Your task to perform on an android device: Go to Reddit.com Image 0: 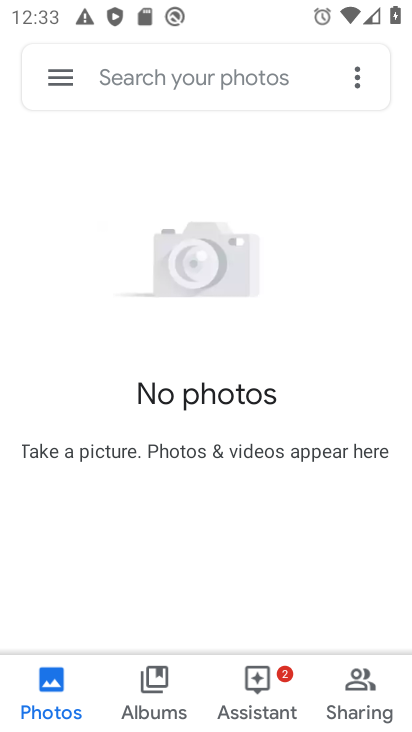
Step 0: press home button
Your task to perform on an android device: Go to Reddit.com Image 1: 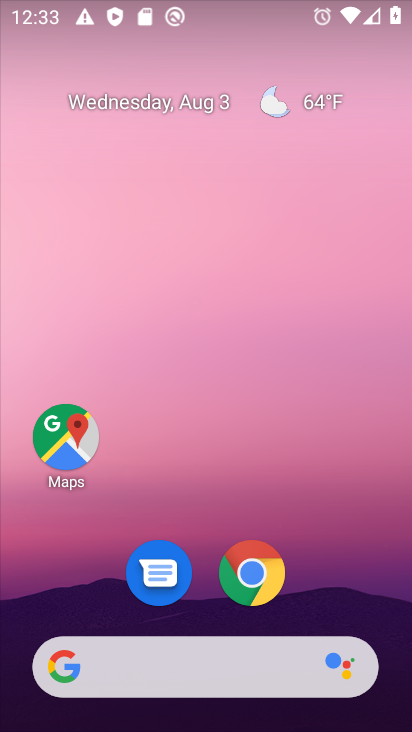
Step 1: drag from (239, 628) to (270, 3)
Your task to perform on an android device: Go to Reddit.com Image 2: 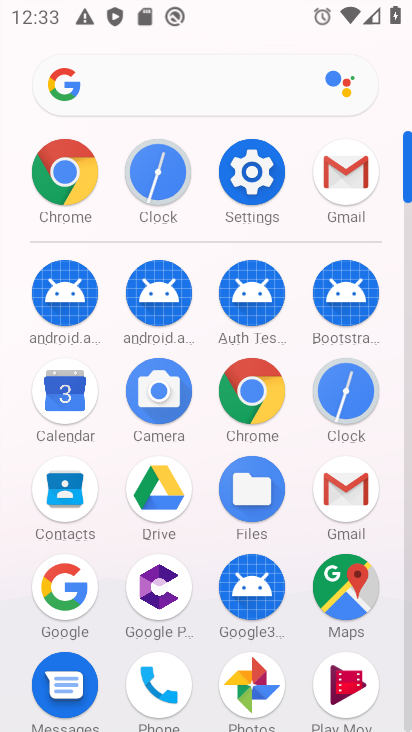
Step 2: click (261, 391)
Your task to perform on an android device: Go to Reddit.com Image 3: 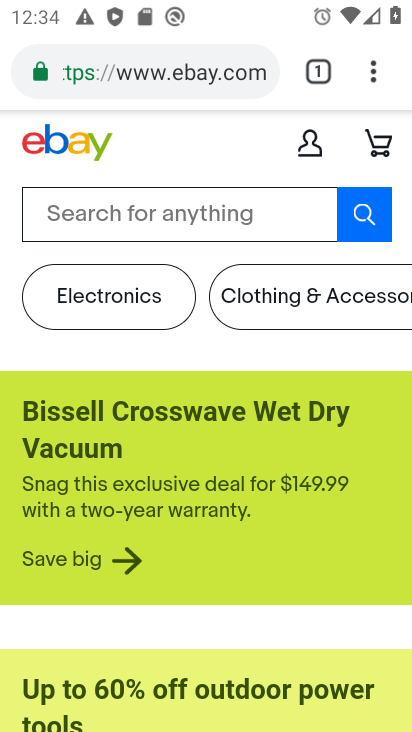
Step 3: click (144, 85)
Your task to perform on an android device: Go to Reddit.com Image 4: 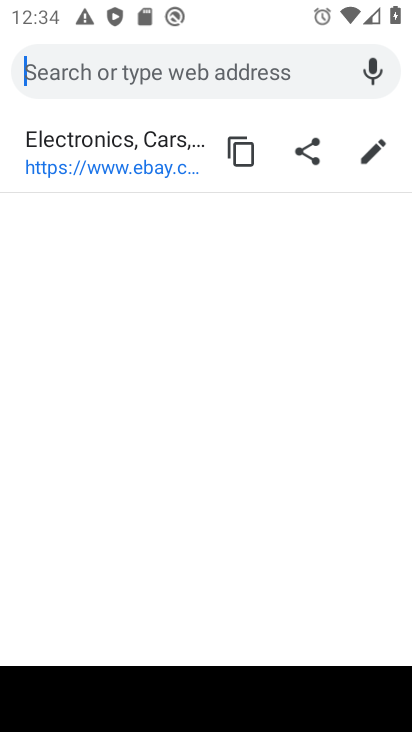
Step 4: type "ressit"
Your task to perform on an android device: Go to Reddit.com Image 5: 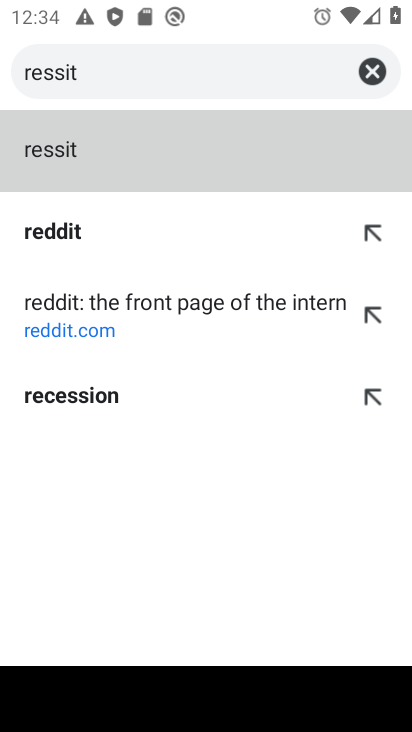
Step 5: click (167, 299)
Your task to perform on an android device: Go to Reddit.com Image 6: 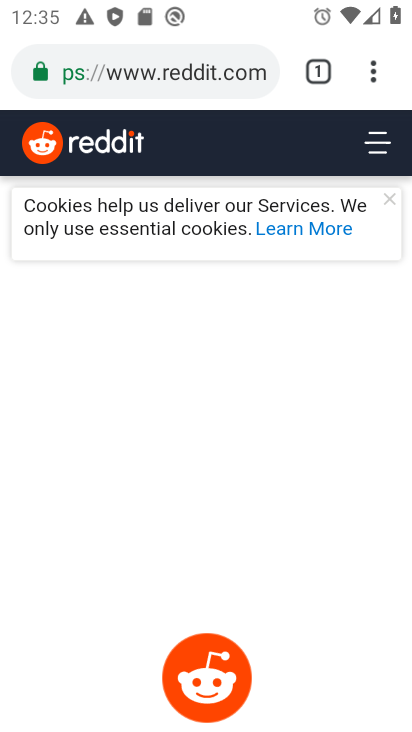
Step 6: task complete